Your task to perform on an android device: turn pop-ups off in chrome Image 0: 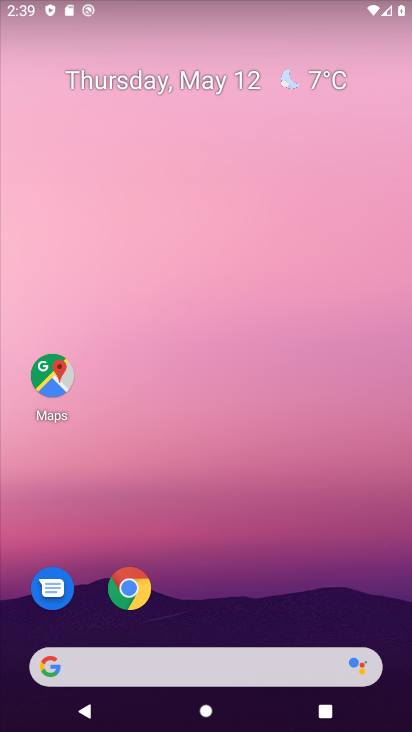
Step 0: click (102, 585)
Your task to perform on an android device: turn pop-ups off in chrome Image 1: 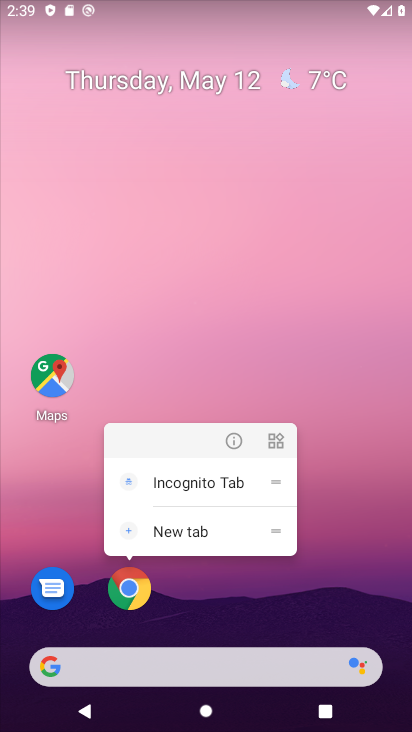
Step 1: click (146, 591)
Your task to perform on an android device: turn pop-ups off in chrome Image 2: 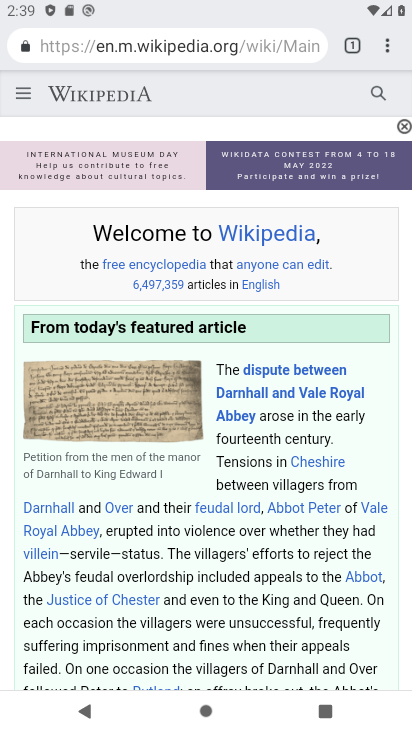
Step 2: click (386, 46)
Your task to perform on an android device: turn pop-ups off in chrome Image 3: 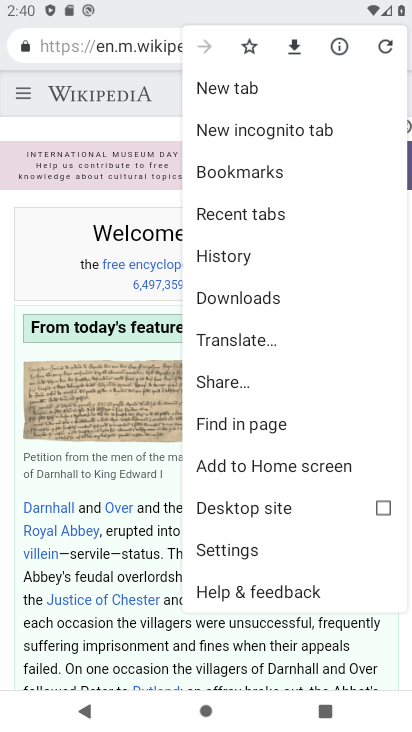
Step 3: click (248, 551)
Your task to perform on an android device: turn pop-ups off in chrome Image 4: 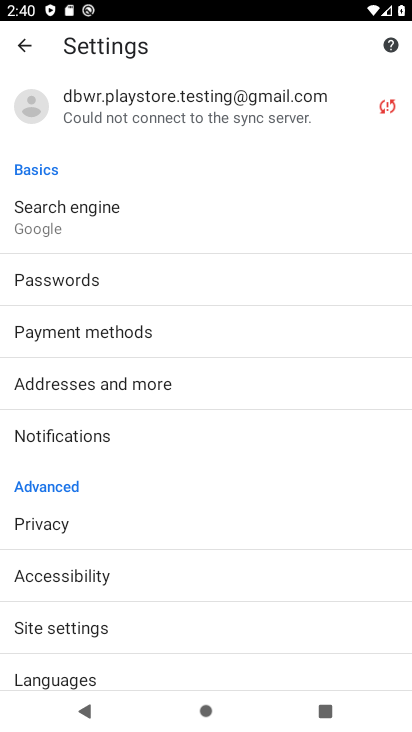
Step 4: click (112, 625)
Your task to perform on an android device: turn pop-ups off in chrome Image 5: 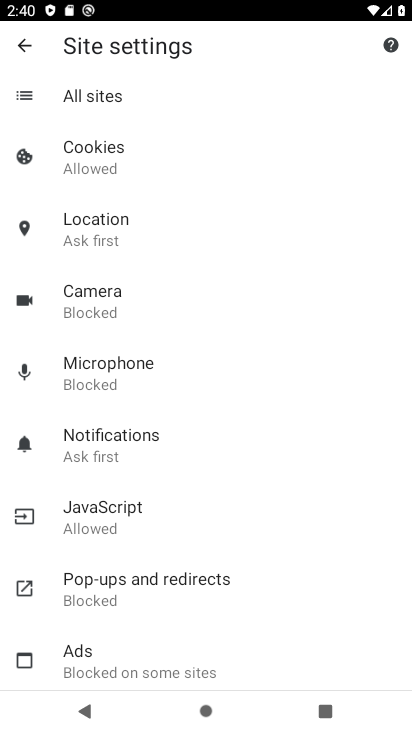
Step 5: click (156, 581)
Your task to perform on an android device: turn pop-ups off in chrome Image 6: 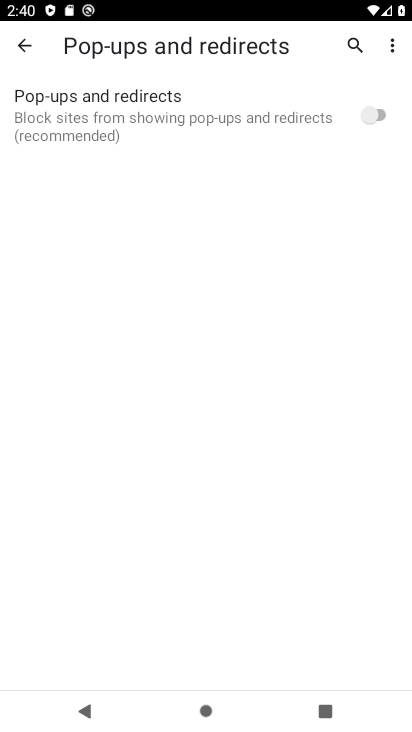
Step 6: task complete